Your task to perform on an android device: Open calendar and show me the second week of next month Image 0: 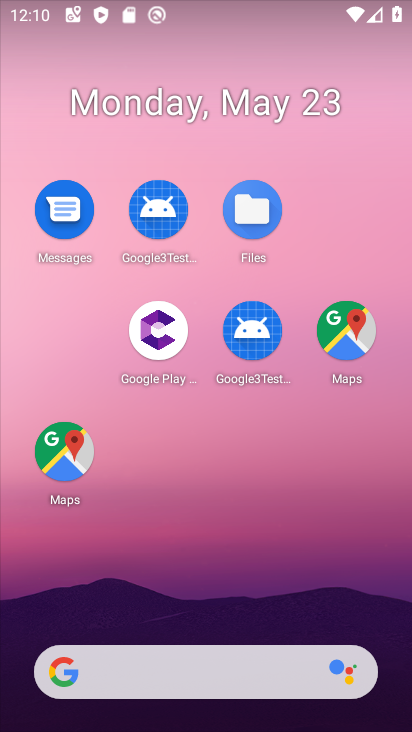
Step 0: drag from (232, 610) to (199, 151)
Your task to perform on an android device: Open calendar and show me the second week of next month Image 1: 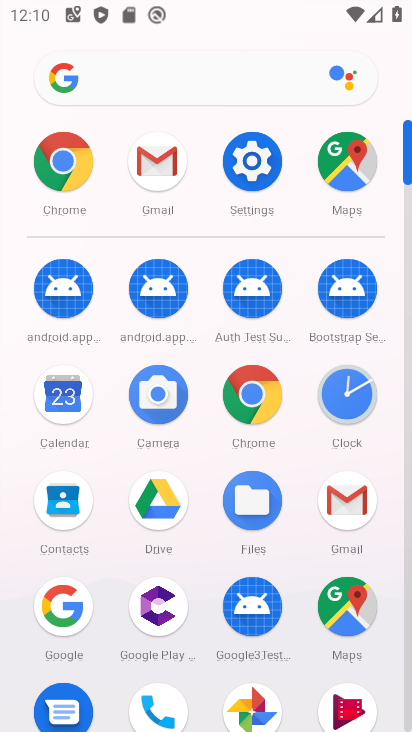
Step 1: click (54, 377)
Your task to perform on an android device: Open calendar and show me the second week of next month Image 2: 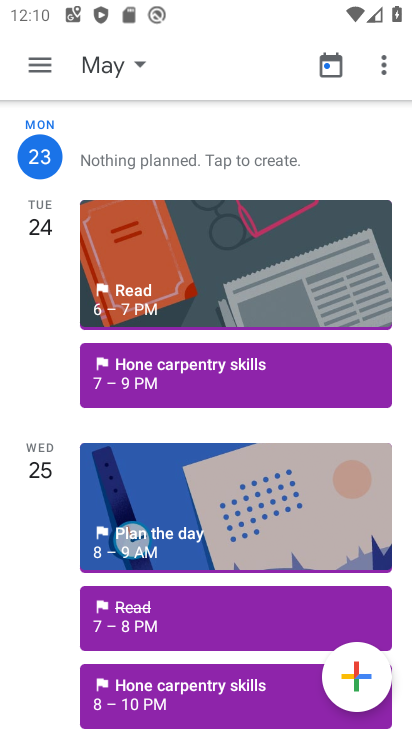
Step 2: click (48, 60)
Your task to perform on an android device: Open calendar and show me the second week of next month Image 3: 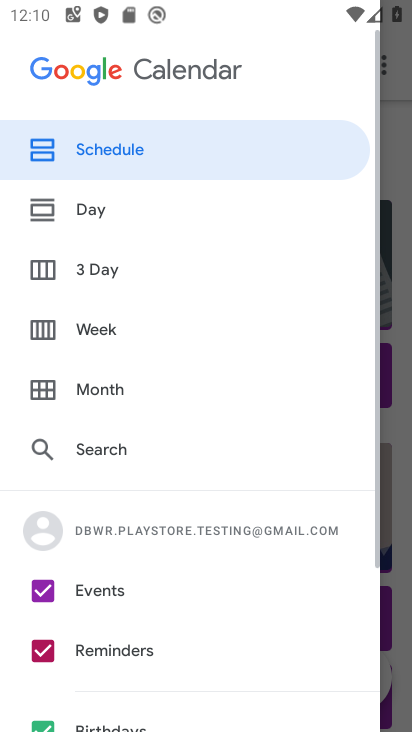
Step 3: click (100, 331)
Your task to perform on an android device: Open calendar and show me the second week of next month Image 4: 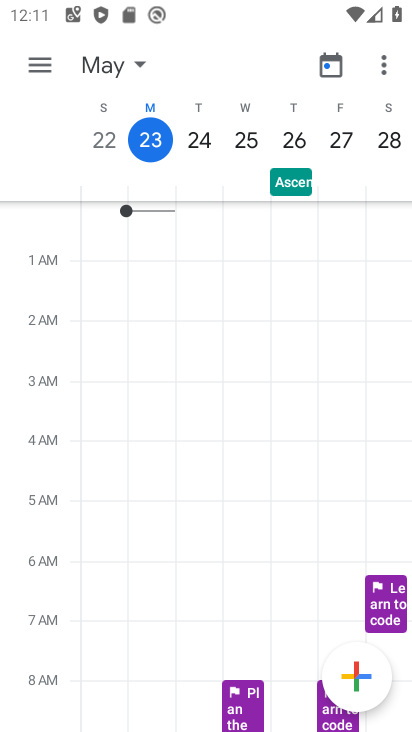
Step 4: task complete